Your task to perform on an android device: Search for the best custom wallets on Etsy. Image 0: 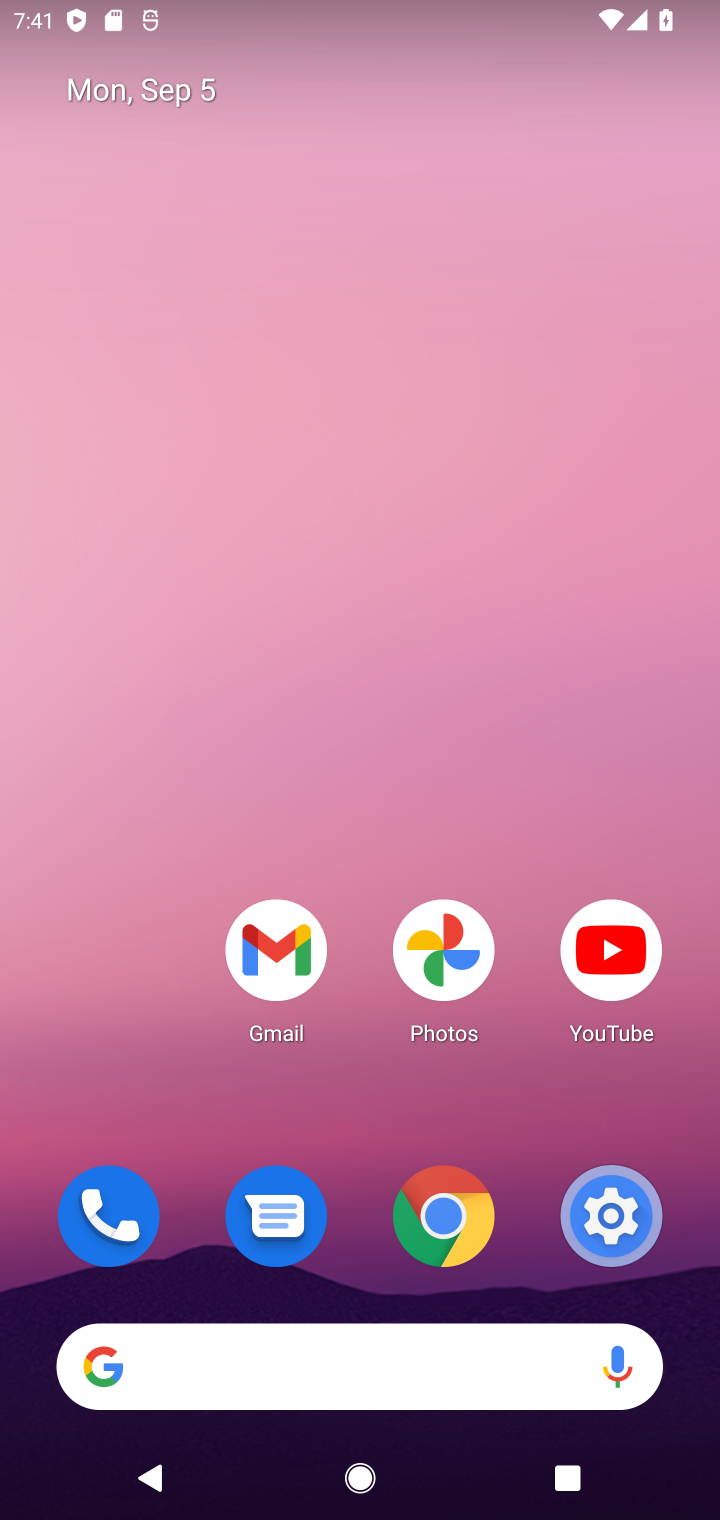
Step 0: click (314, 1354)
Your task to perform on an android device: Search for the best custom wallets on Etsy. Image 1: 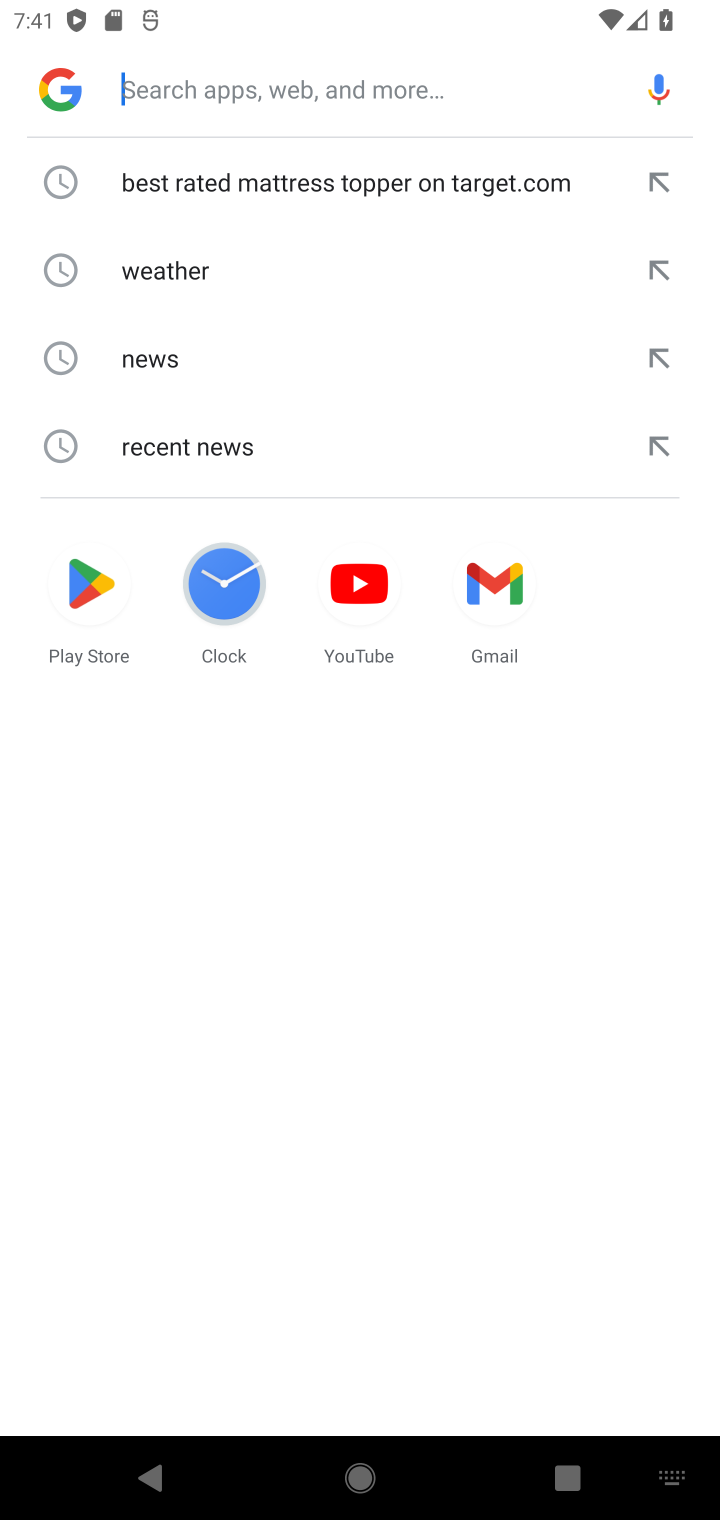
Step 1: type "etsy"
Your task to perform on an android device: Search for the best custom wallets on Etsy. Image 2: 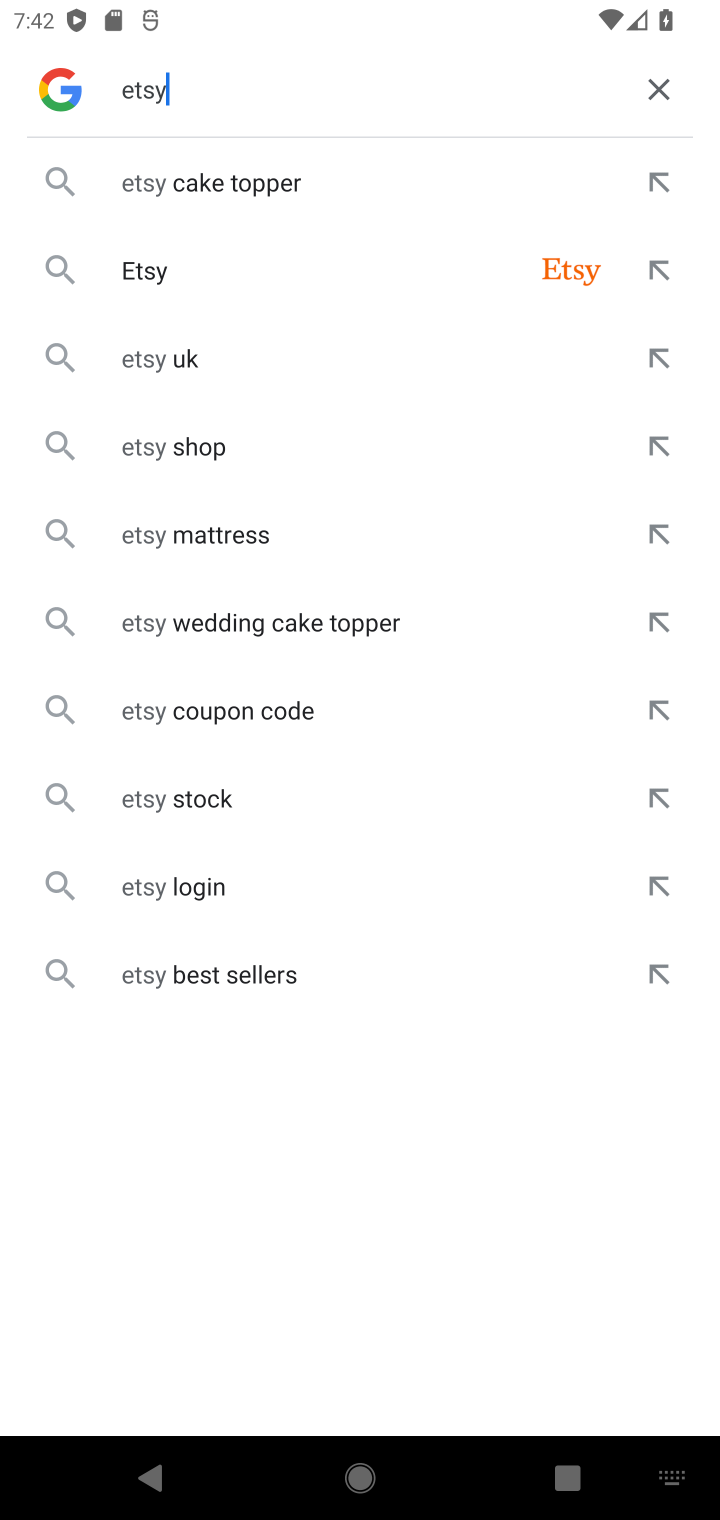
Step 2: click (180, 295)
Your task to perform on an android device: Search for the best custom wallets on Etsy. Image 3: 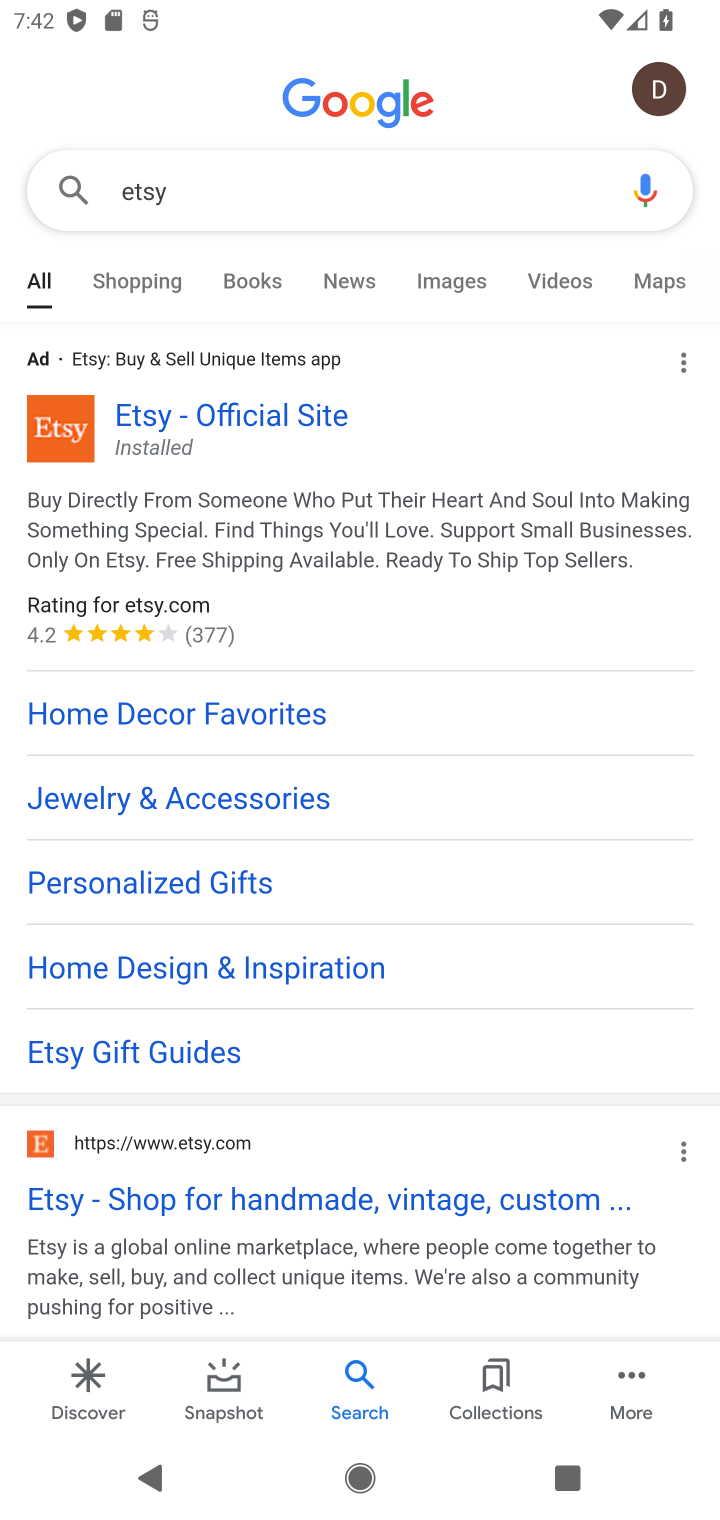
Step 3: click (257, 413)
Your task to perform on an android device: Search for the best custom wallets on Etsy. Image 4: 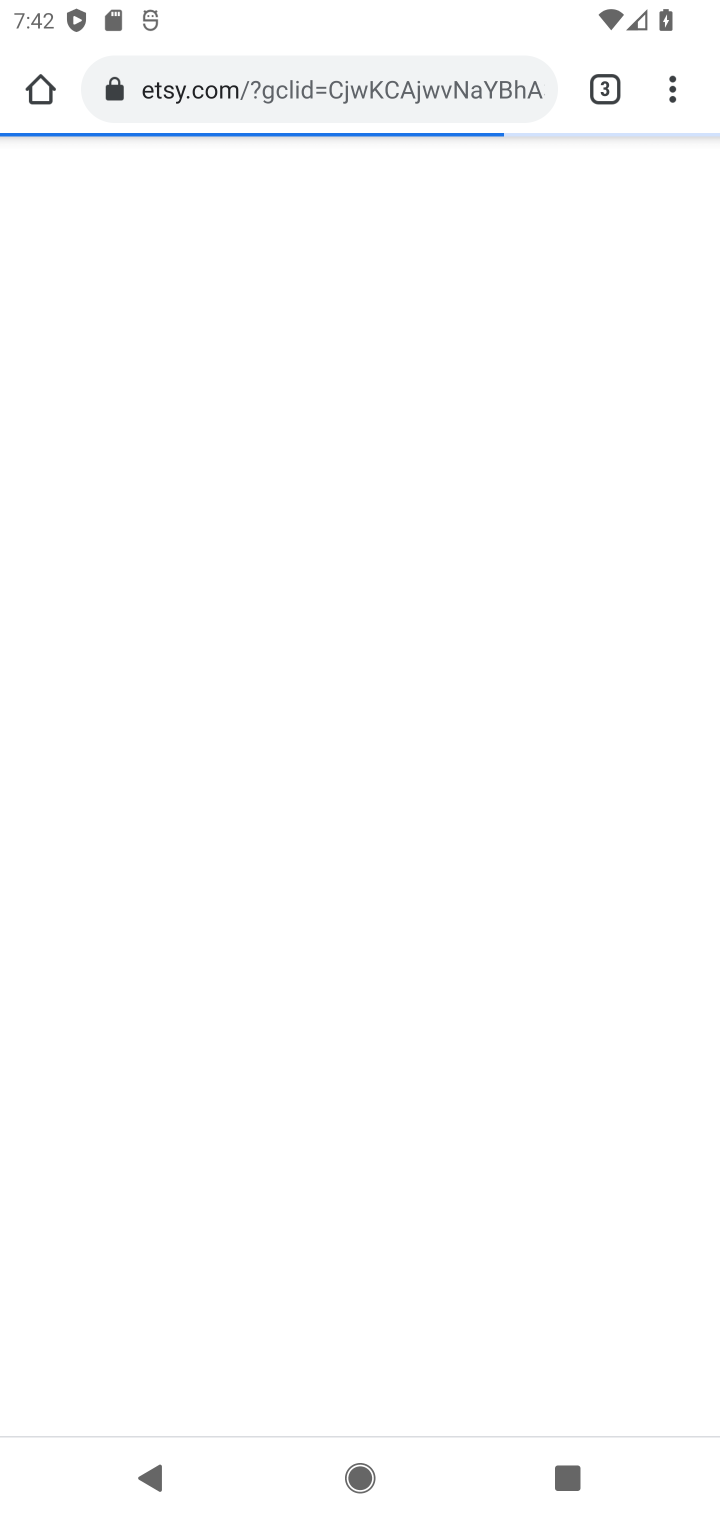
Step 4: click (257, 413)
Your task to perform on an android device: Search for the best custom wallets on Etsy. Image 5: 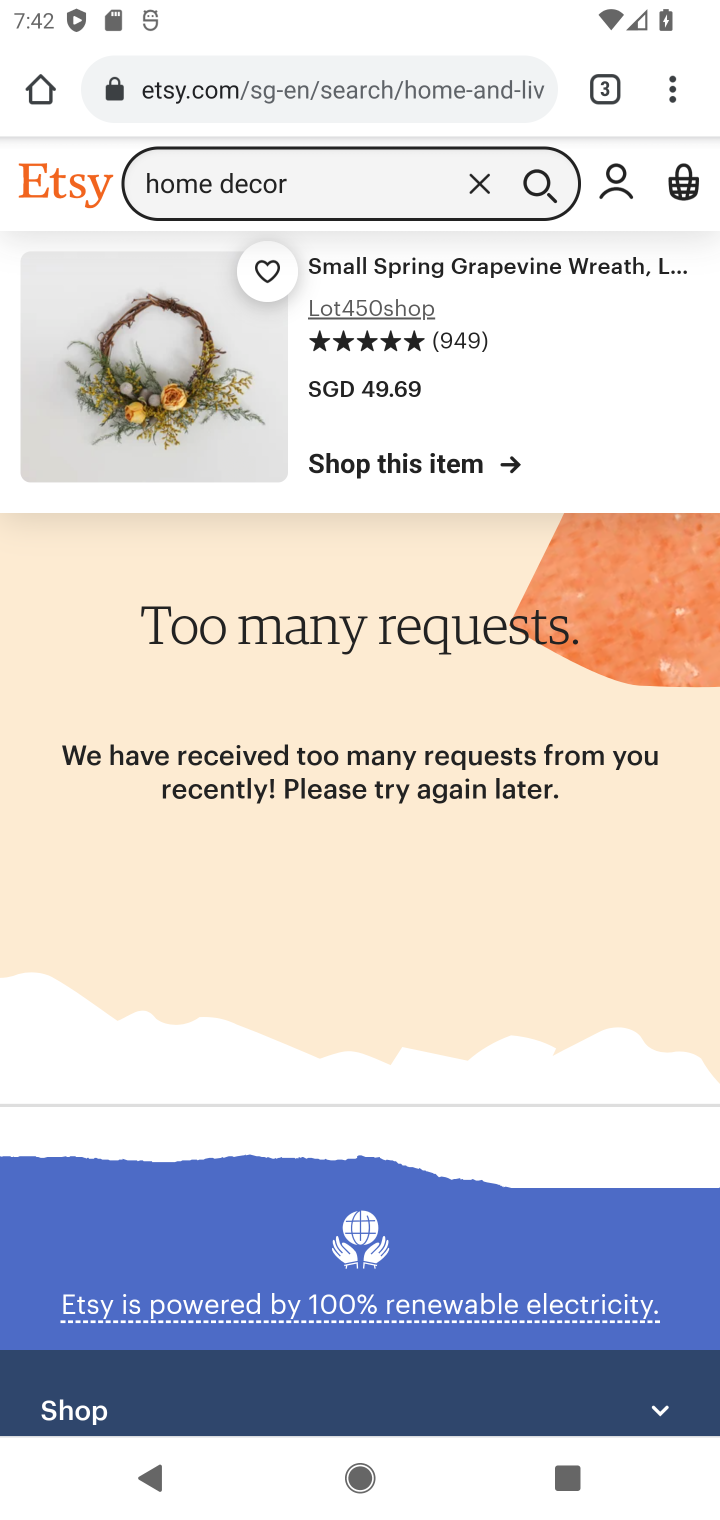
Step 5: click (483, 181)
Your task to perform on an android device: Search for the best custom wallets on Etsy. Image 6: 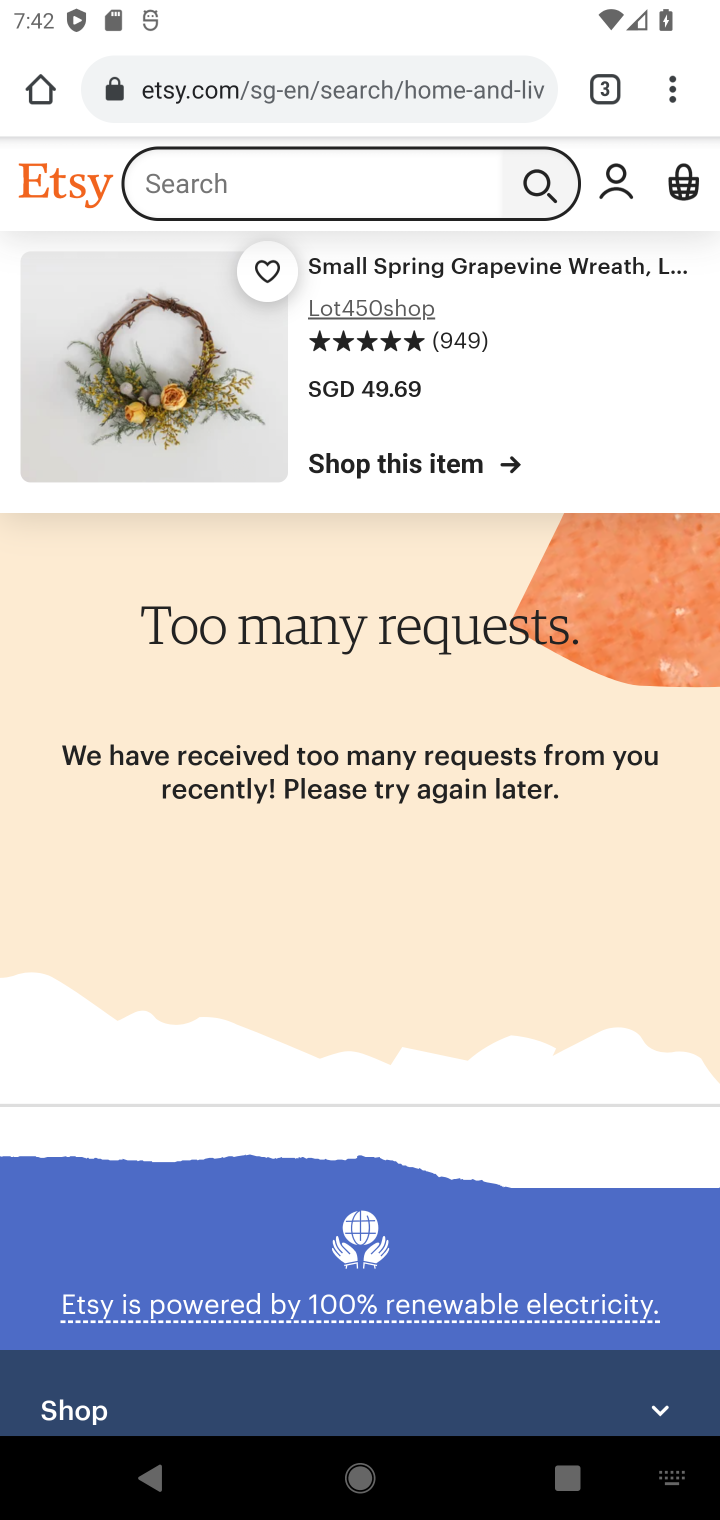
Step 6: click (325, 192)
Your task to perform on an android device: Search for the best custom wallets on Etsy. Image 7: 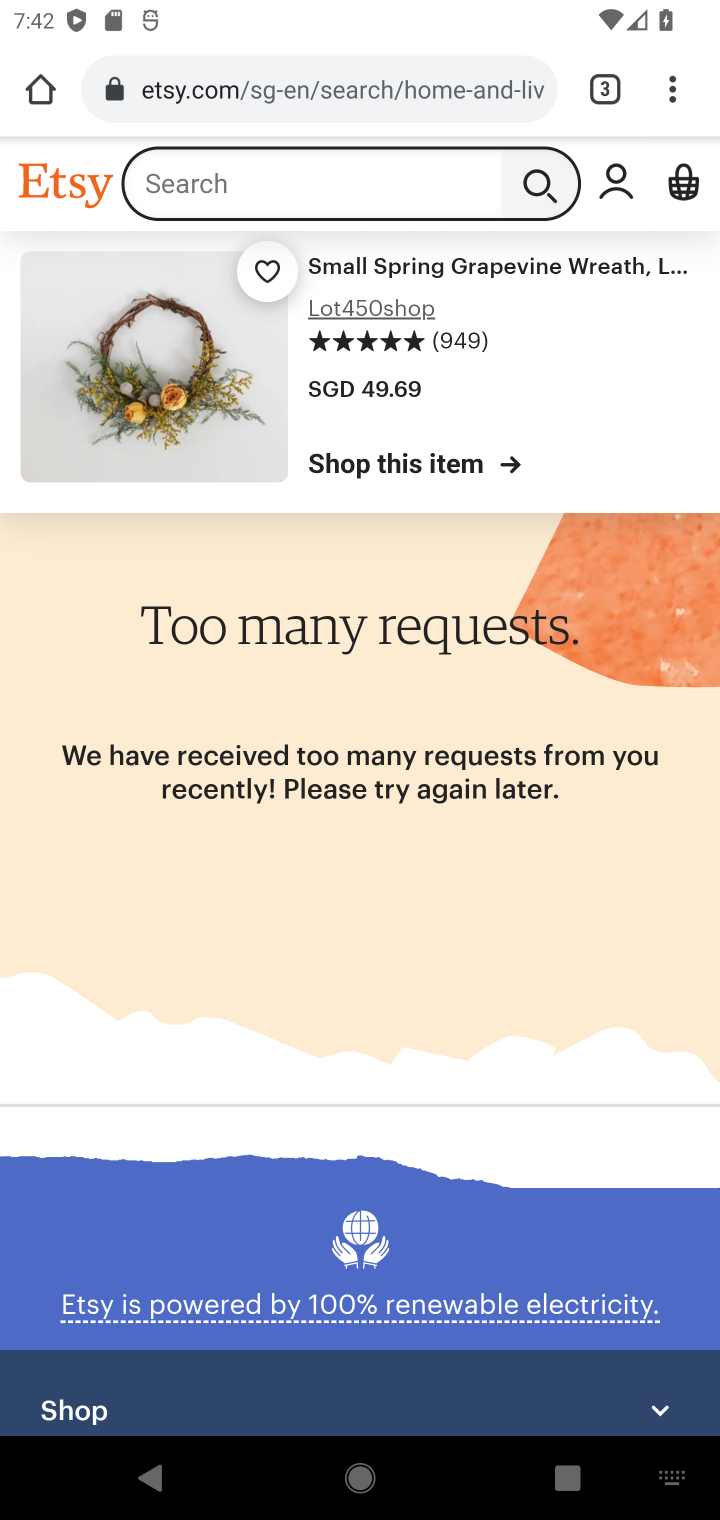
Step 7: type "best custom wallets"
Your task to perform on an android device: Search for the best custom wallets on Etsy. Image 8: 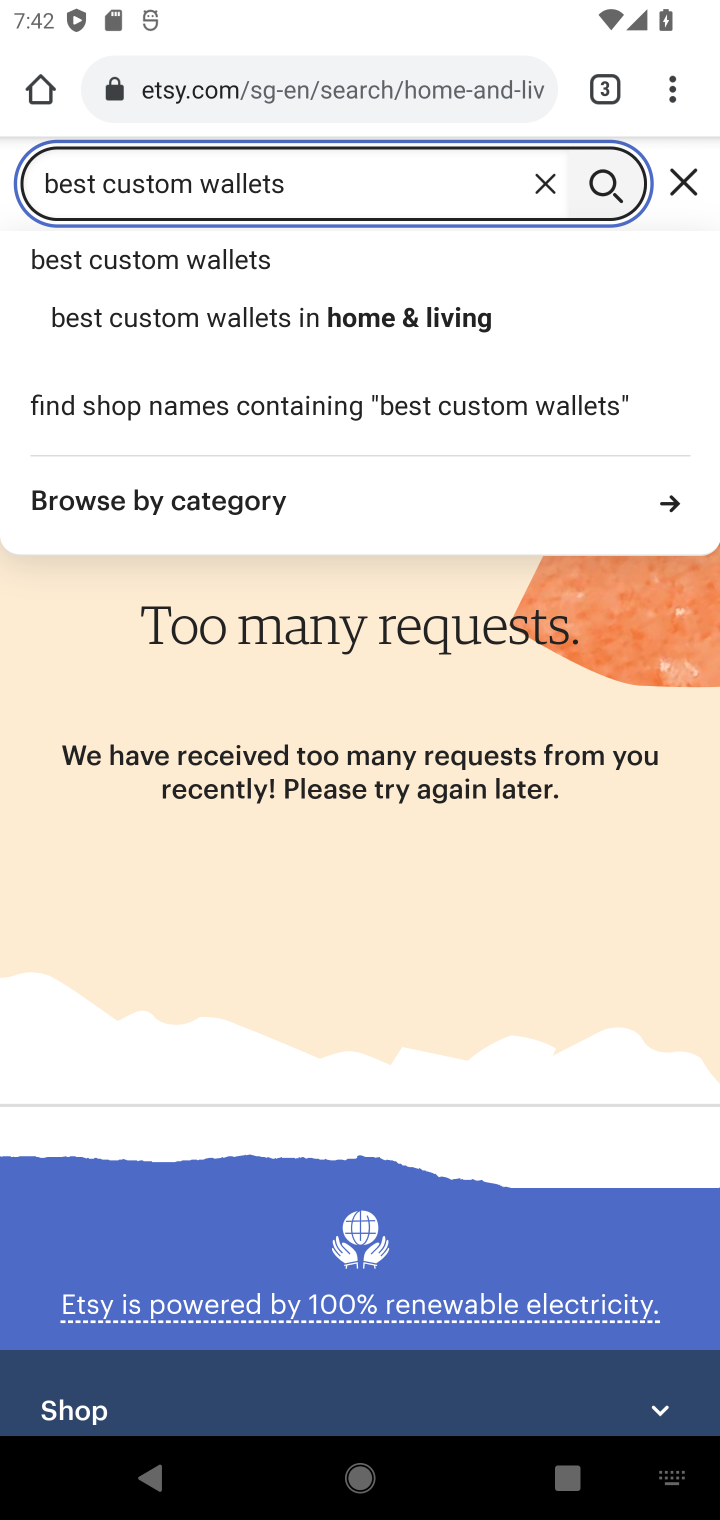
Step 8: click (271, 269)
Your task to perform on an android device: Search for the best custom wallets on Etsy. Image 9: 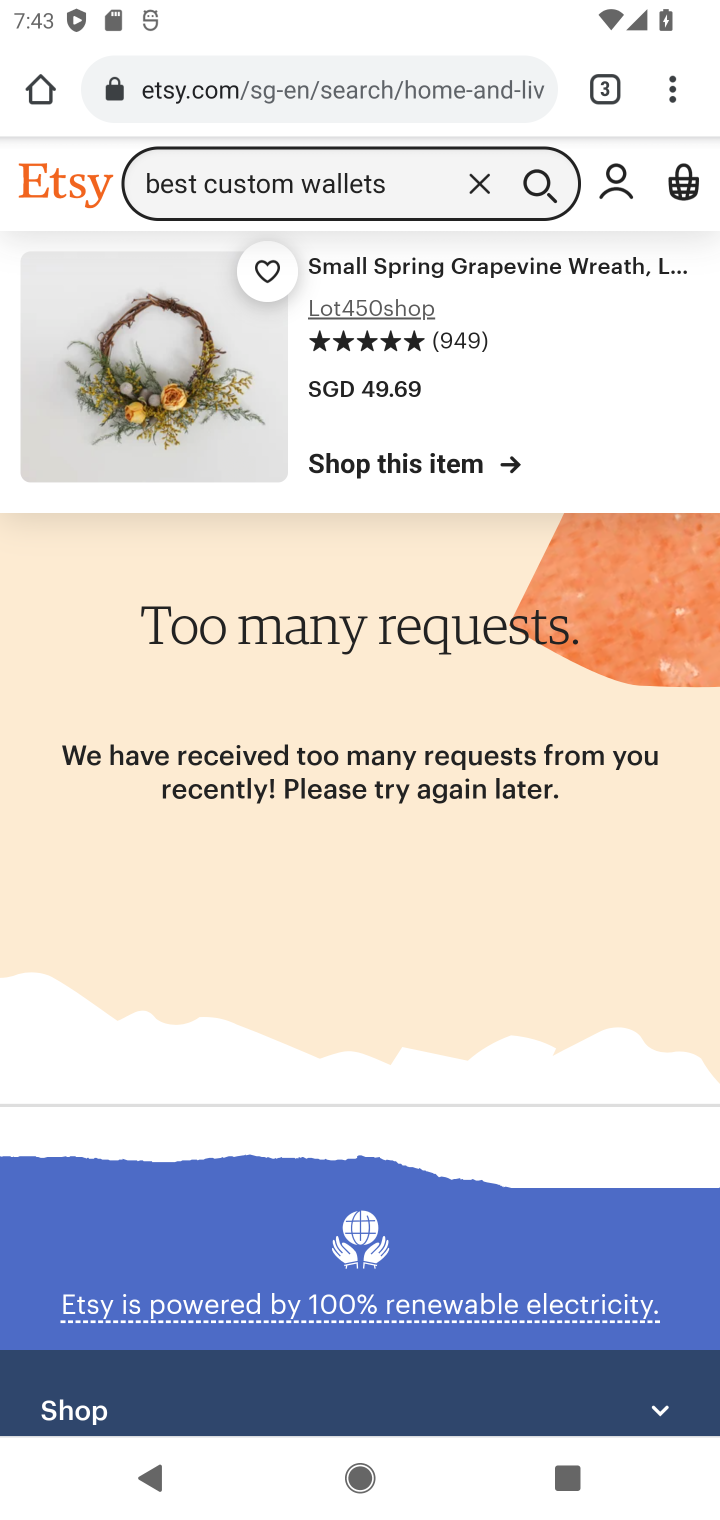
Step 9: click (521, 176)
Your task to perform on an android device: Search for the best custom wallets on Etsy. Image 10: 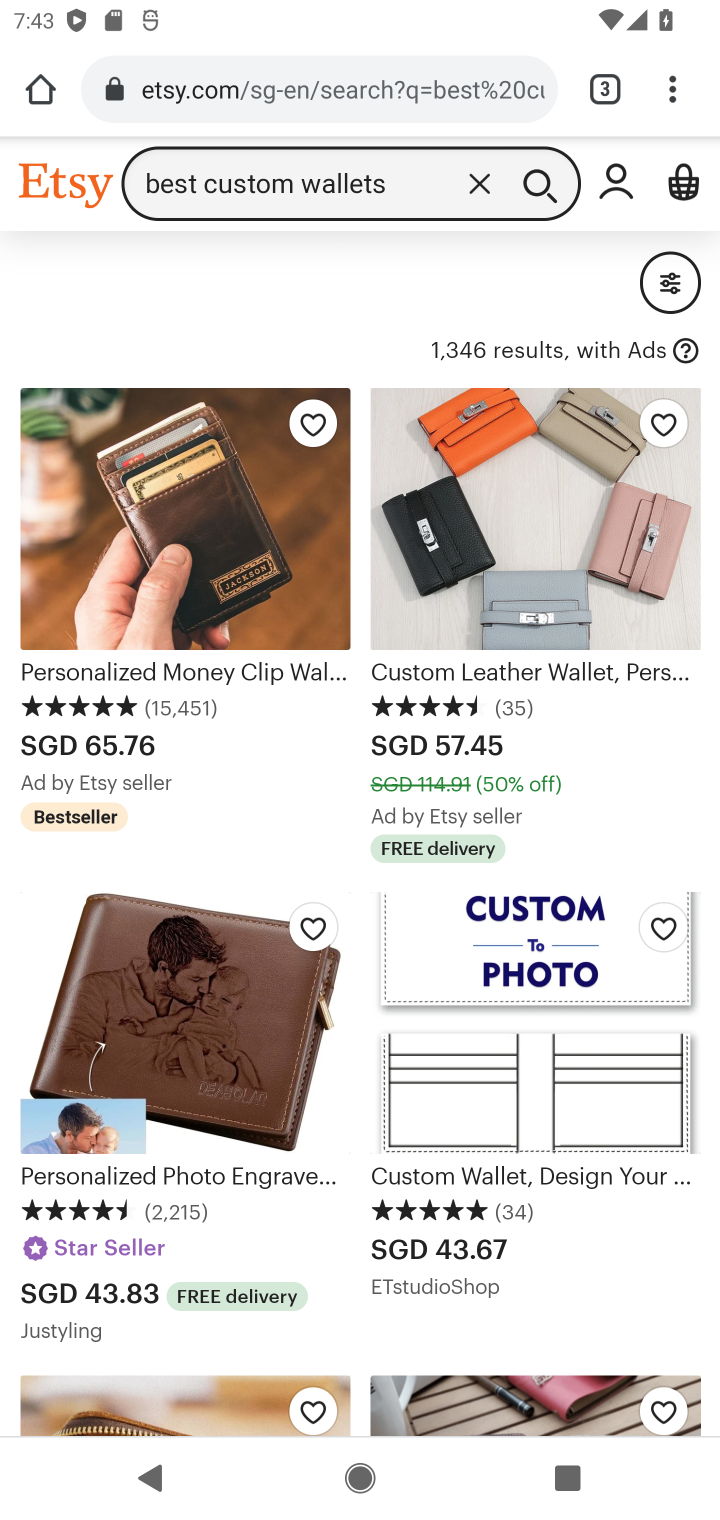
Step 10: task complete